Your task to perform on an android device: all mails in gmail Image 0: 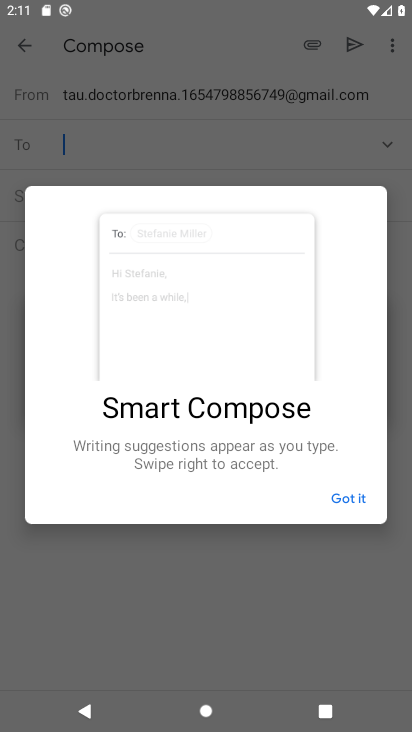
Step 0: press home button
Your task to perform on an android device: all mails in gmail Image 1: 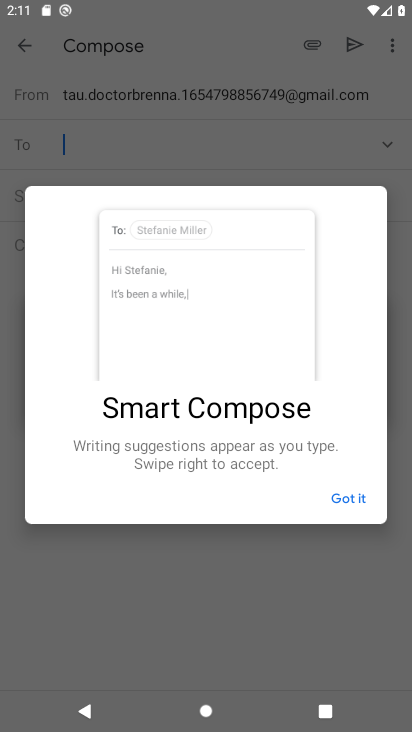
Step 1: click (329, 84)
Your task to perform on an android device: all mails in gmail Image 2: 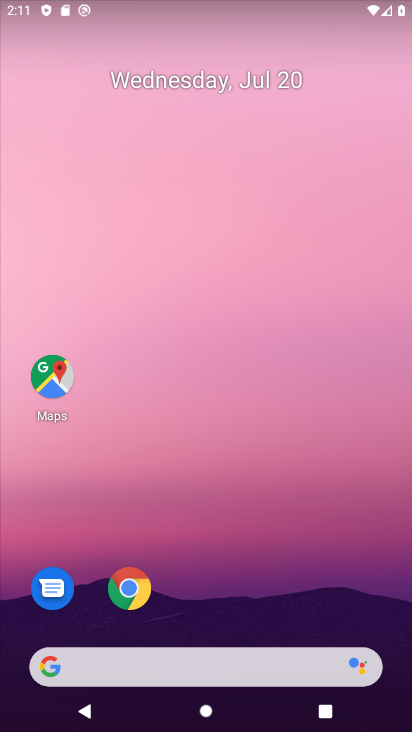
Step 2: drag from (176, 633) to (280, 2)
Your task to perform on an android device: all mails in gmail Image 3: 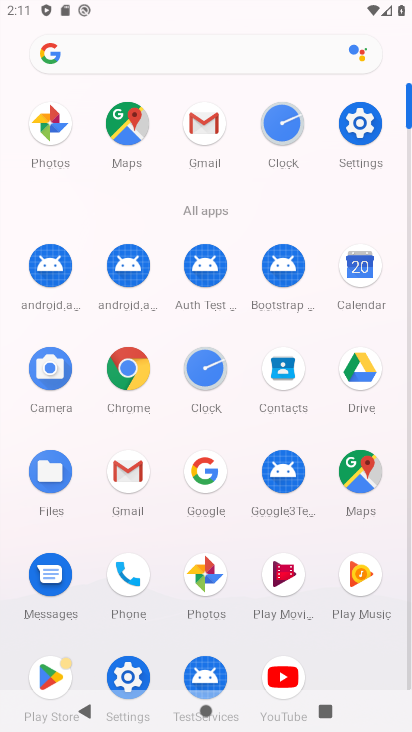
Step 3: click (127, 471)
Your task to perform on an android device: all mails in gmail Image 4: 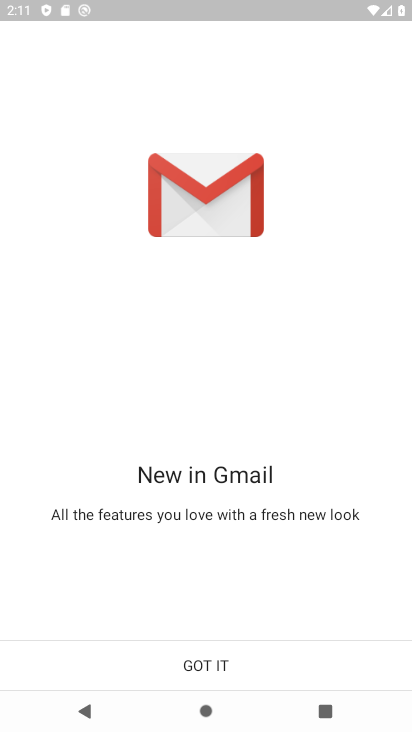
Step 4: click (179, 658)
Your task to perform on an android device: all mails in gmail Image 5: 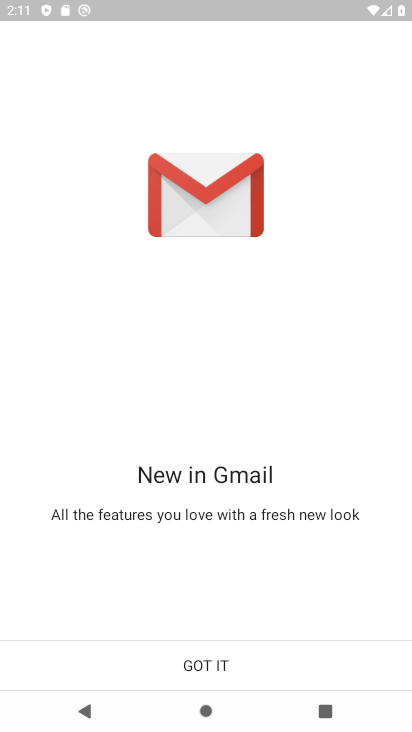
Step 5: click (179, 658)
Your task to perform on an android device: all mails in gmail Image 6: 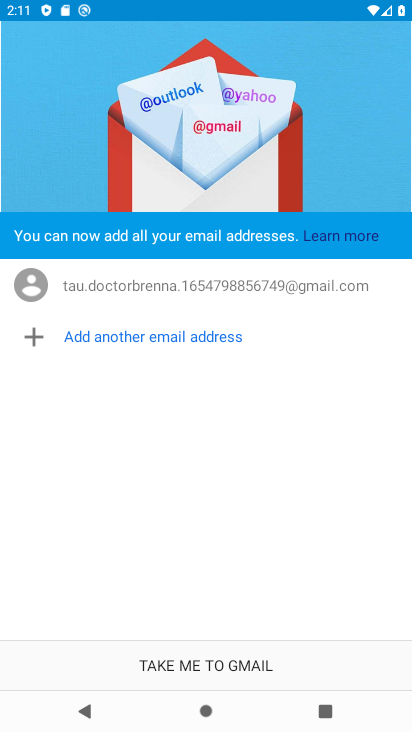
Step 6: click (208, 670)
Your task to perform on an android device: all mails in gmail Image 7: 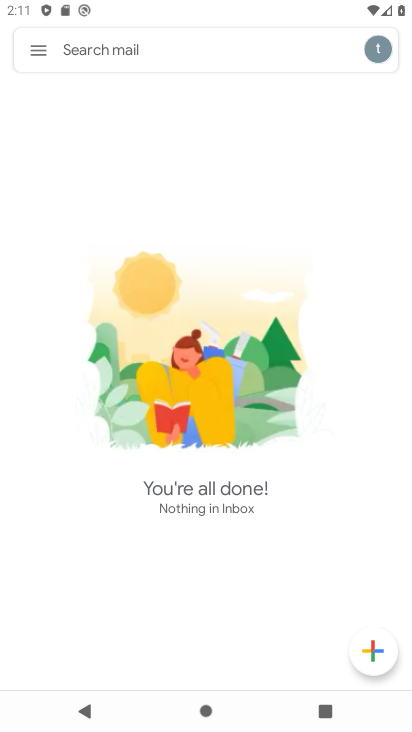
Step 7: click (32, 63)
Your task to perform on an android device: all mails in gmail Image 8: 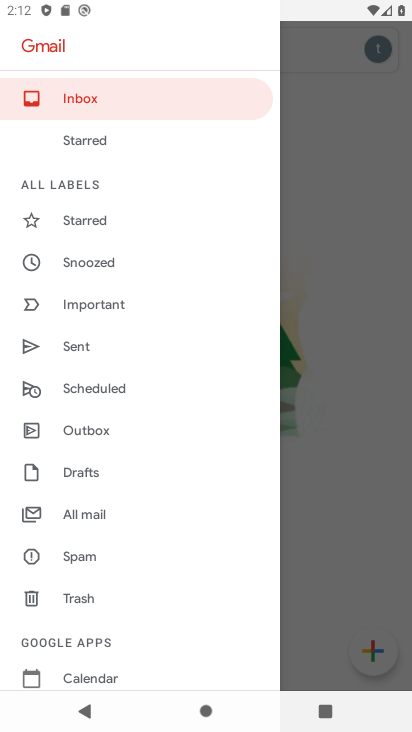
Step 8: click (105, 514)
Your task to perform on an android device: all mails in gmail Image 9: 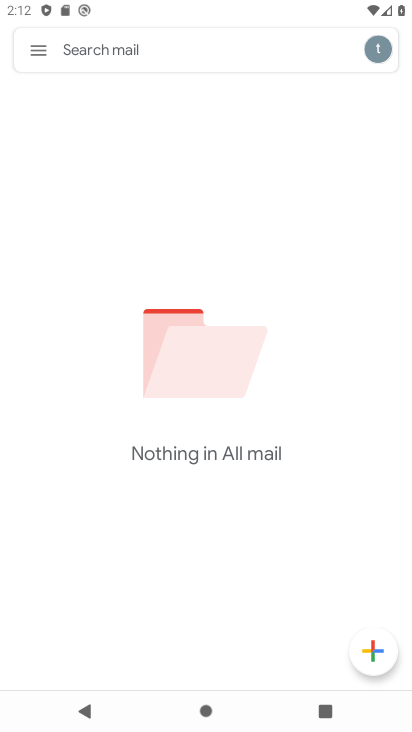
Step 9: task complete